Your task to perform on an android device: open app "Clock" Image 0: 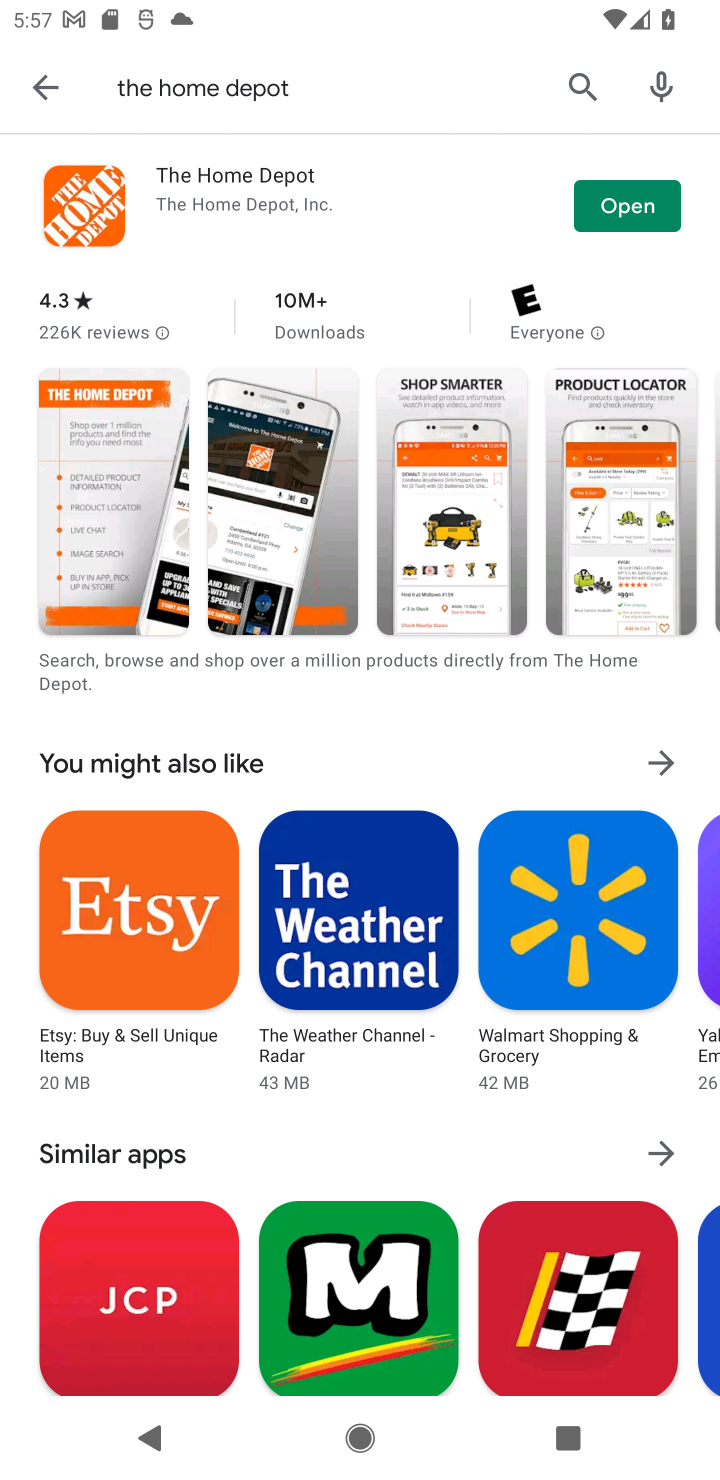
Step 0: press home button
Your task to perform on an android device: open app "Clock" Image 1: 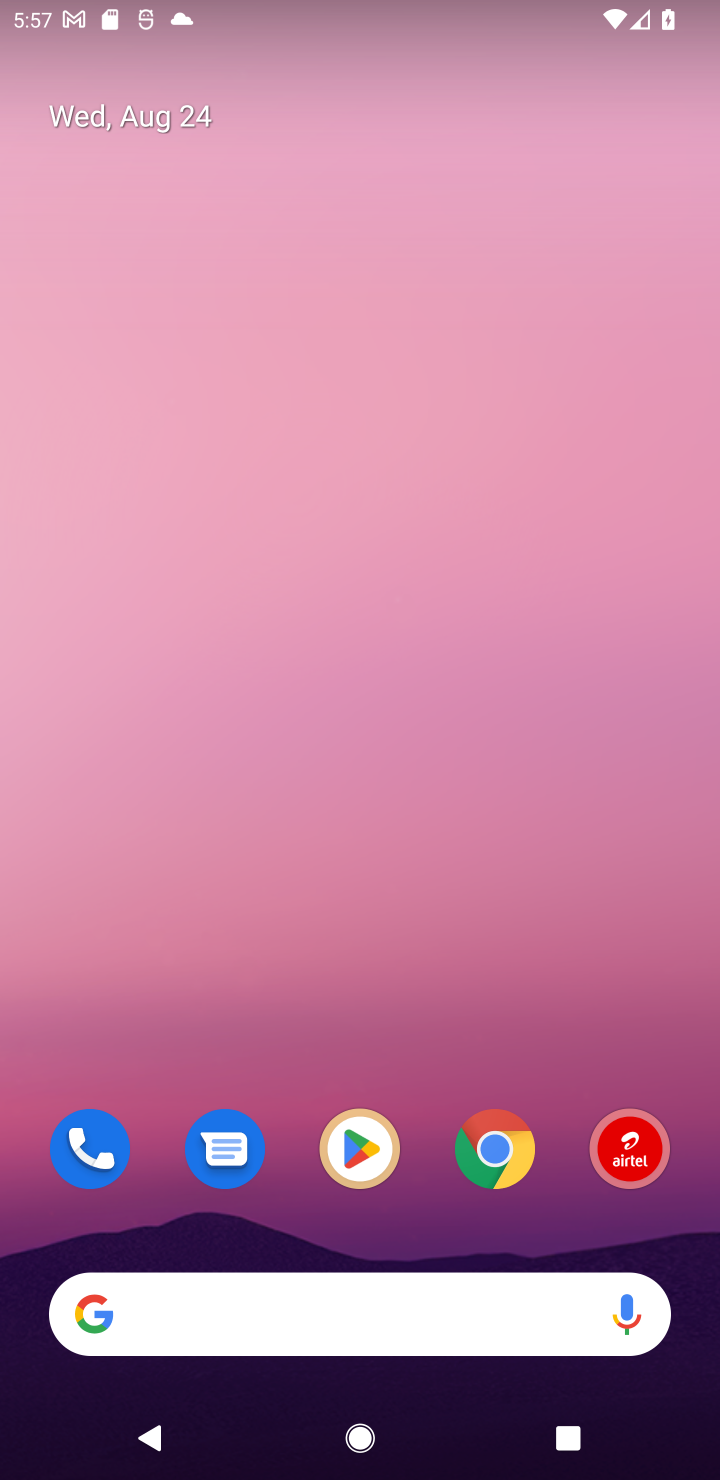
Step 1: click (363, 1146)
Your task to perform on an android device: open app "Clock" Image 2: 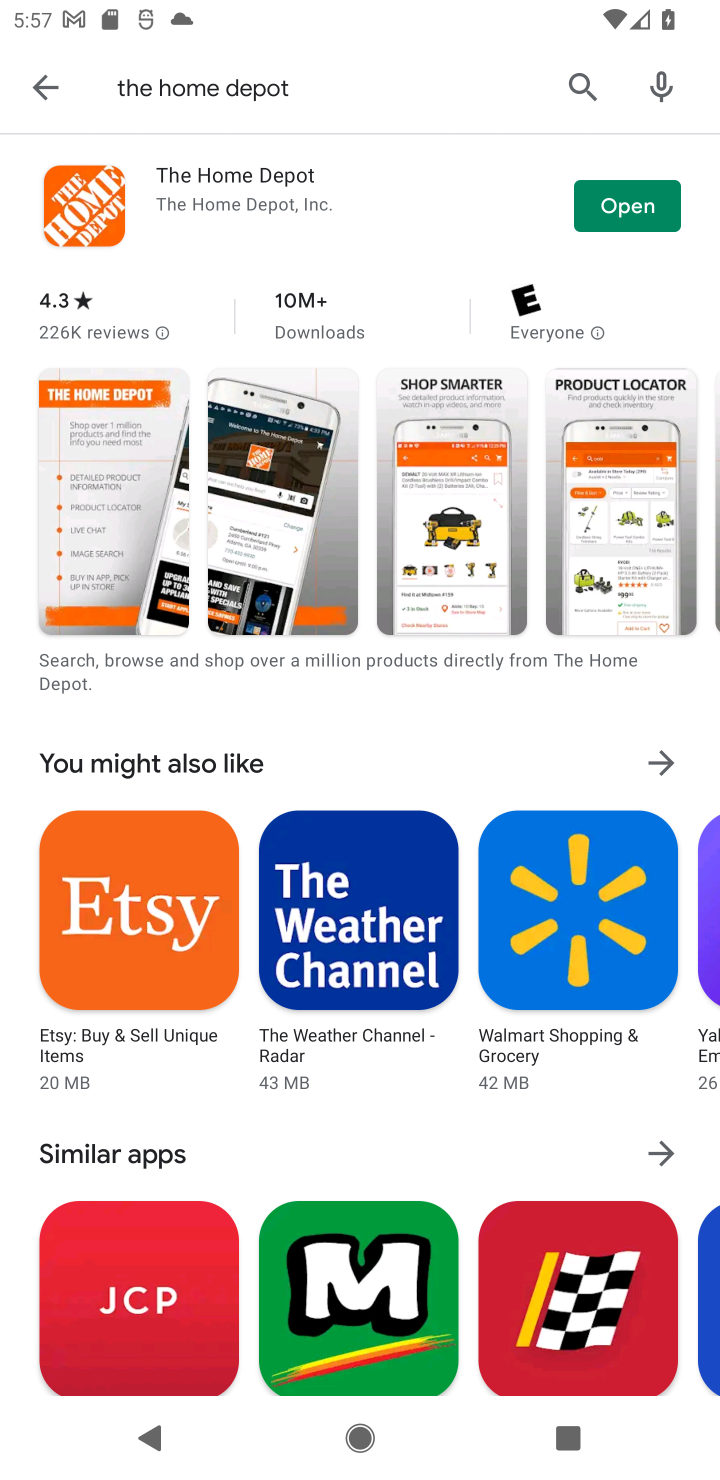
Step 2: click (581, 78)
Your task to perform on an android device: open app "Clock" Image 3: 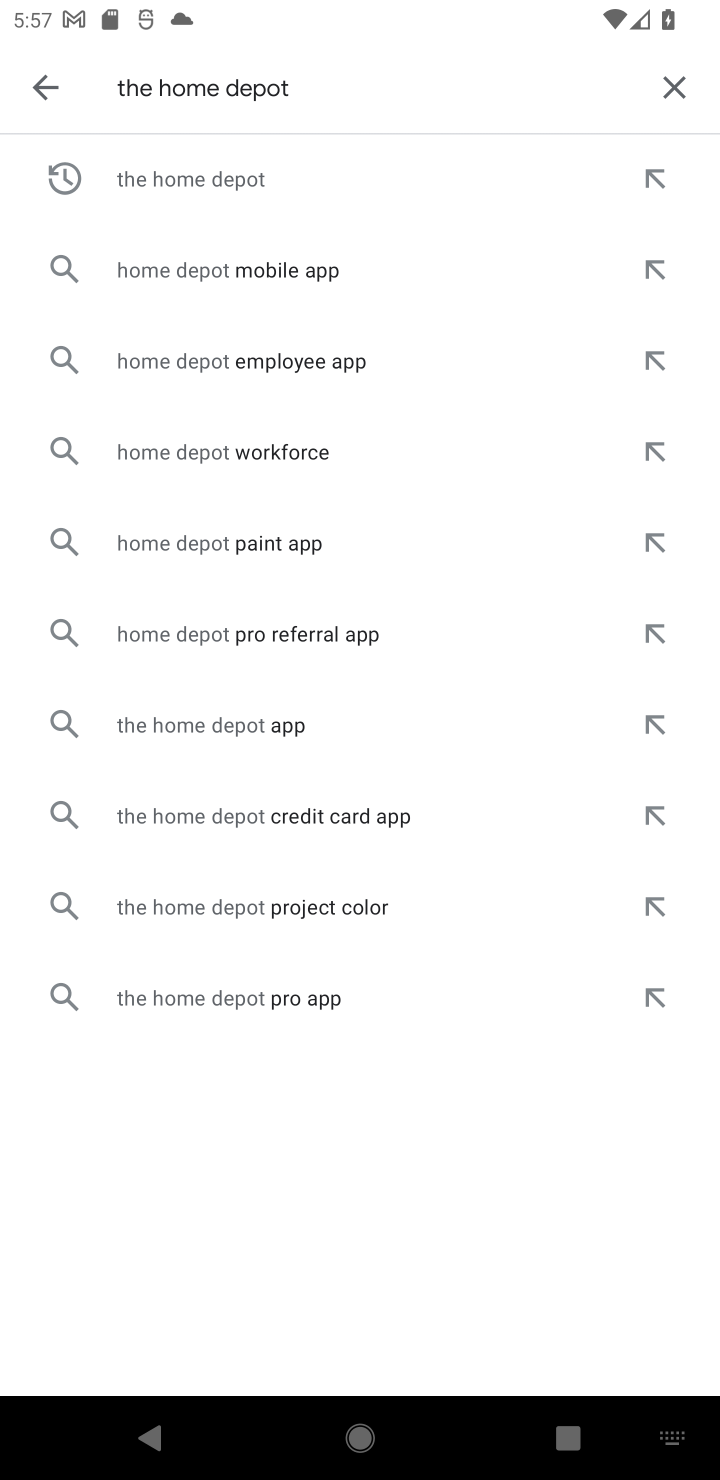
Step 3: click (667, 83)
Your task to perform on an android device: open app "Clock" Image 4: 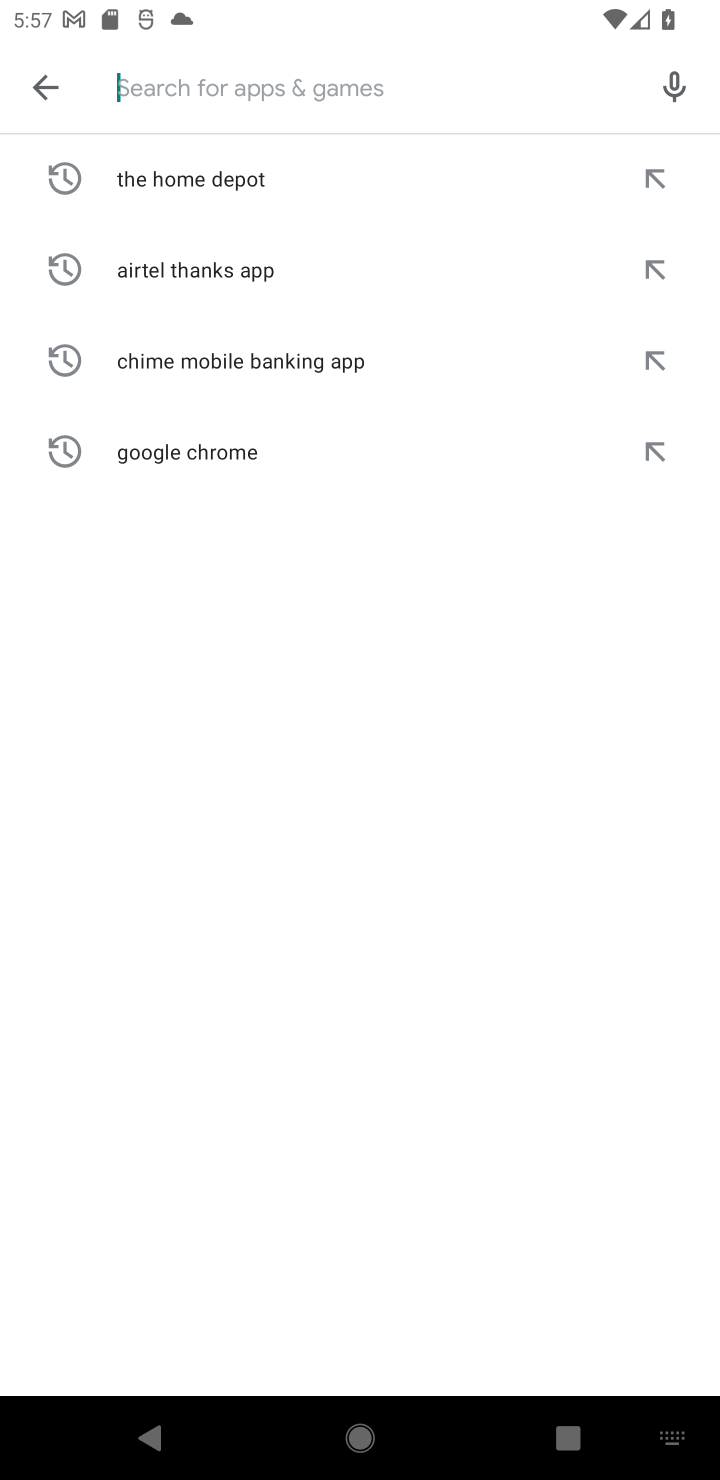
Step 4: type "Clock"
Your task to perform on an android device: open app "Clock" Image 5: 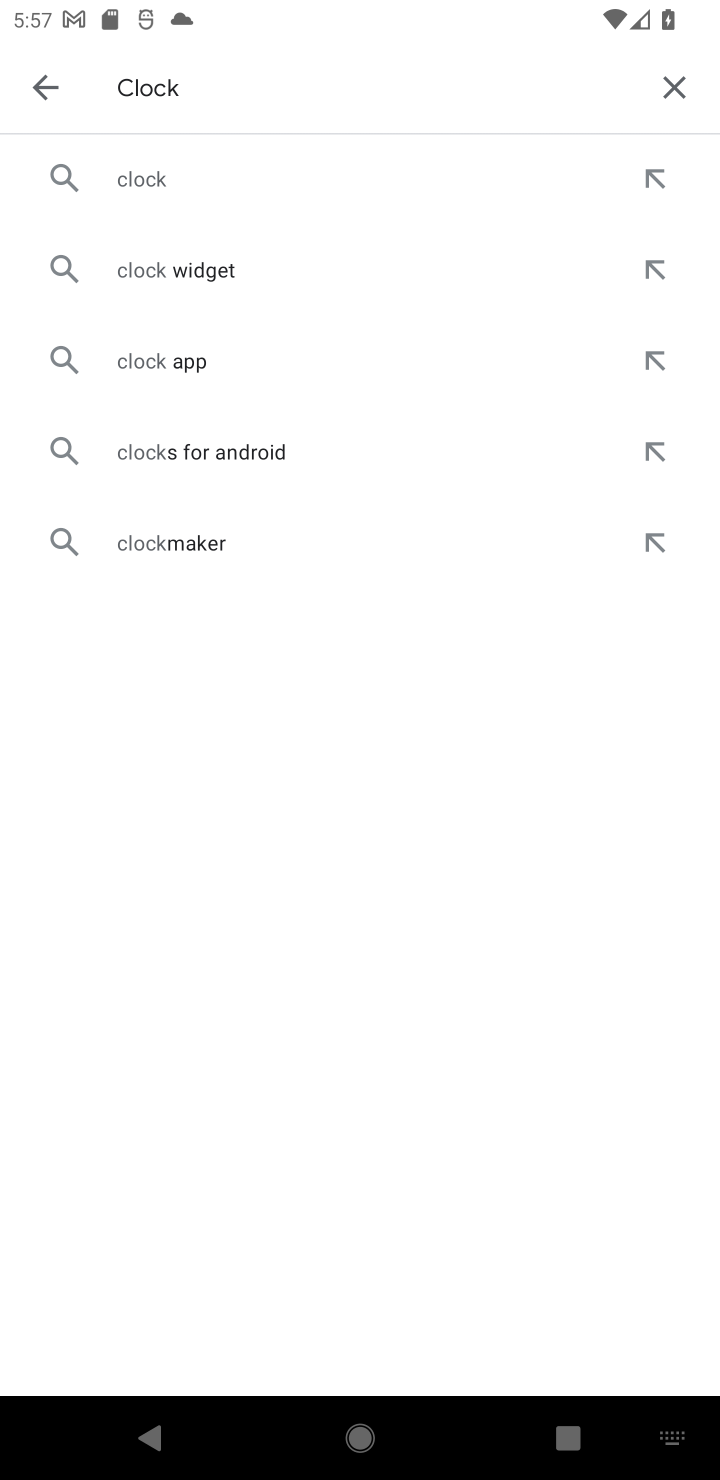
Step 5: click (214, 191)
Your task to perform on an android device: open app "Clock" Image 6: 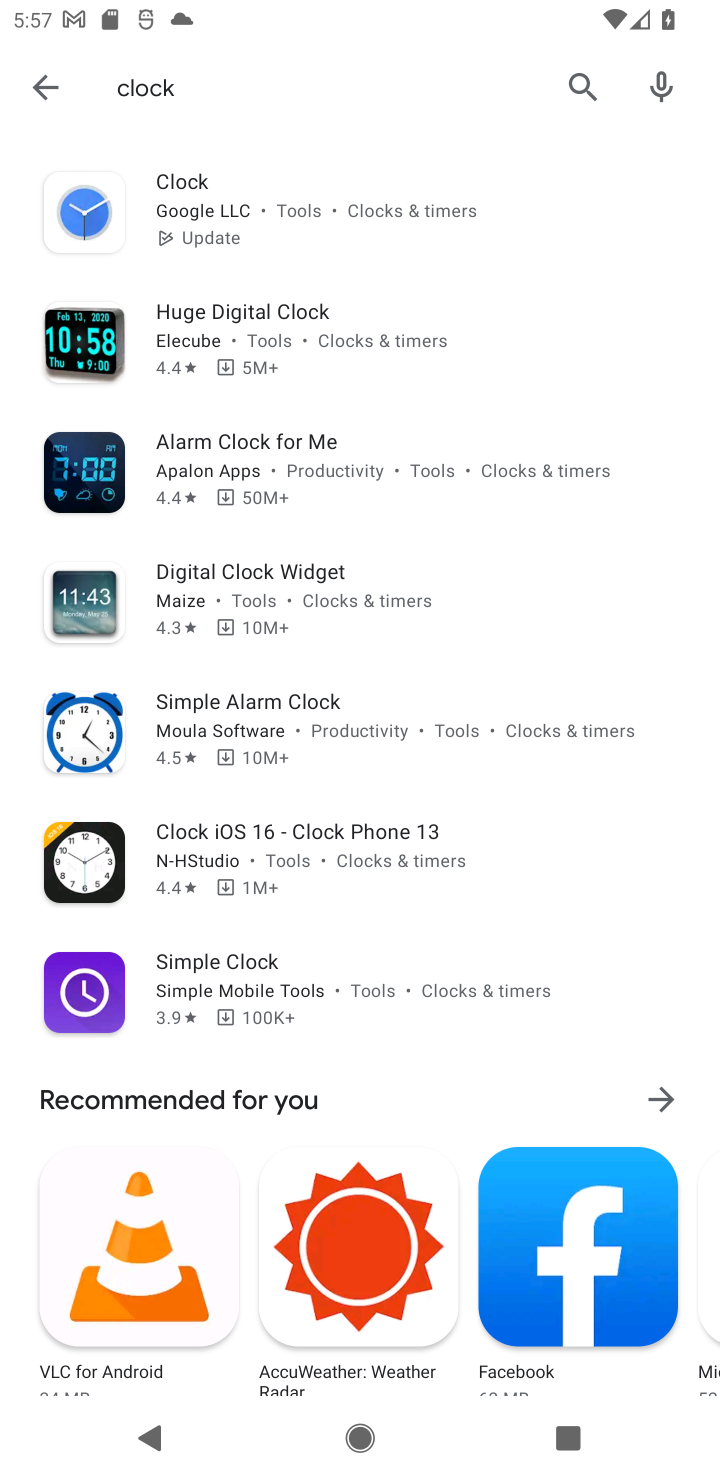
Step 6: click (205, 220)
Your task to perform on an android device: open app "Clock" Image 7: 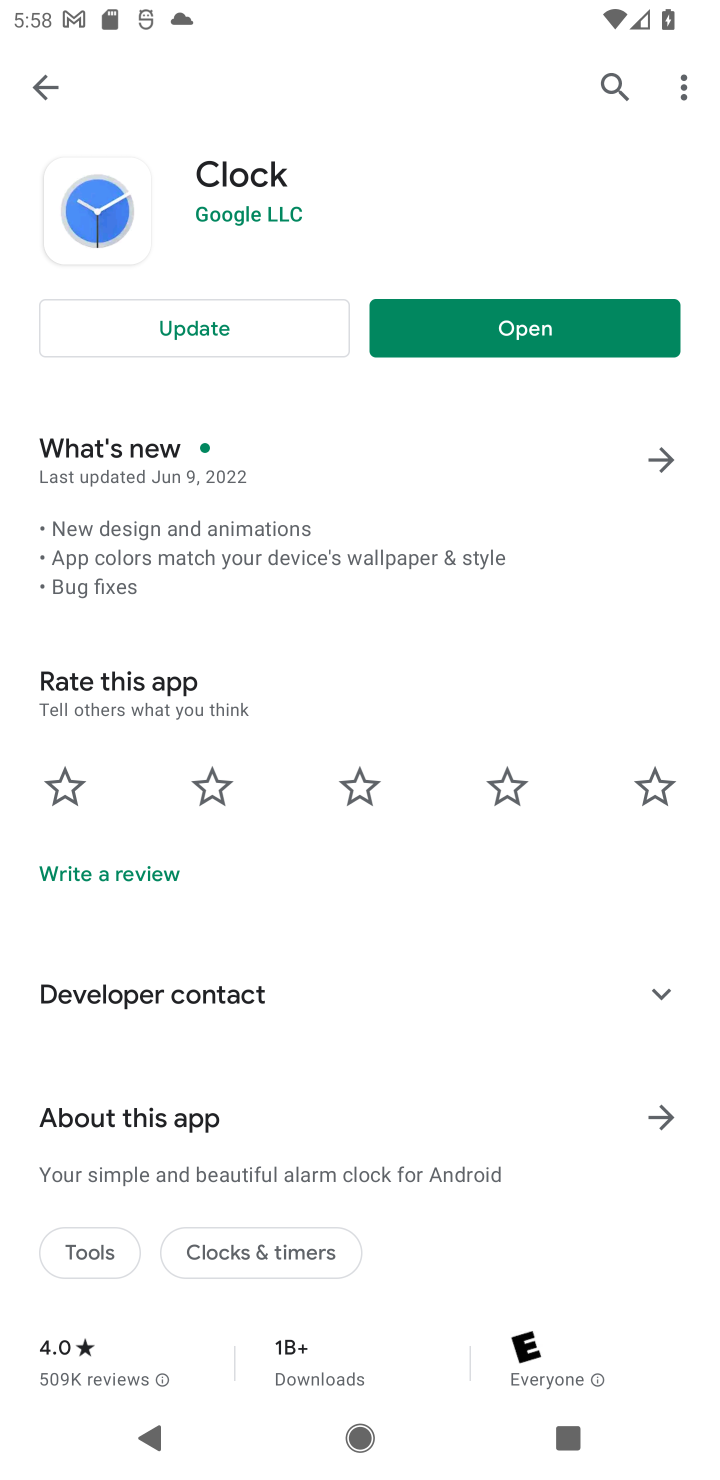
Step 7: click (558, 328)
Your task to perform on an android device: open app "Clock" Image 8: 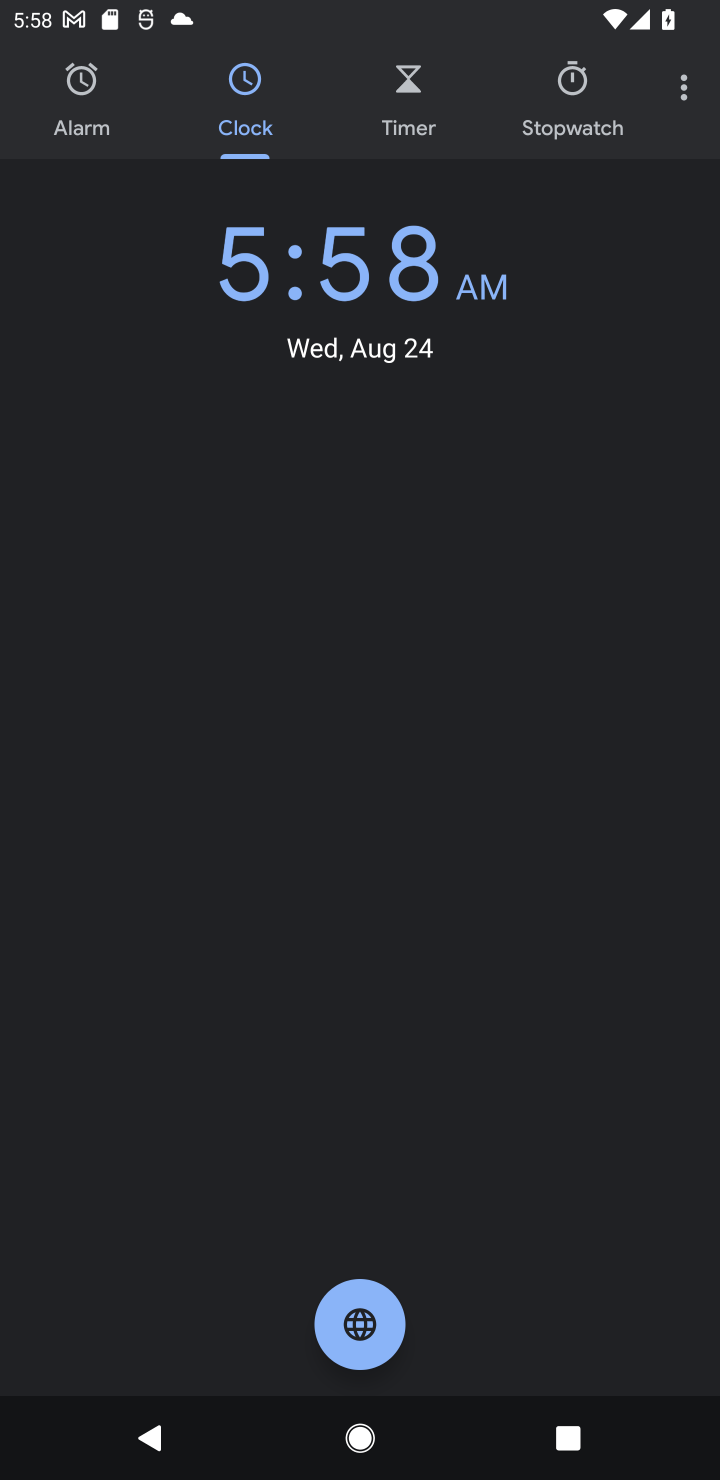
Step 8: task complete